Your task to perform on an android device: change notifications settings Image 0: 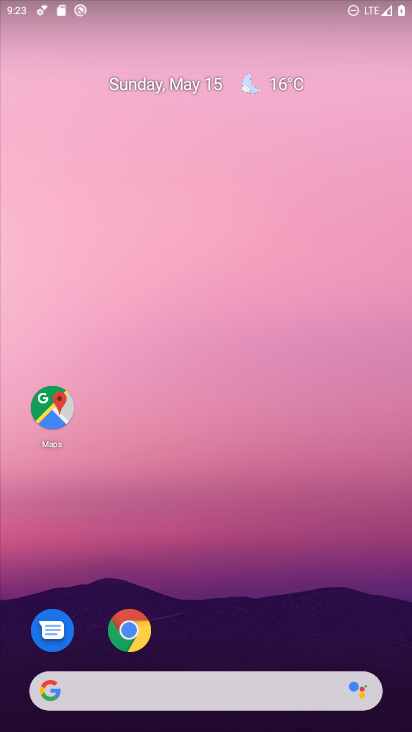
Step 0: drag from (180, 574) to (238, 133)
Your task to perform on an android device: change notifications settings Image 1: 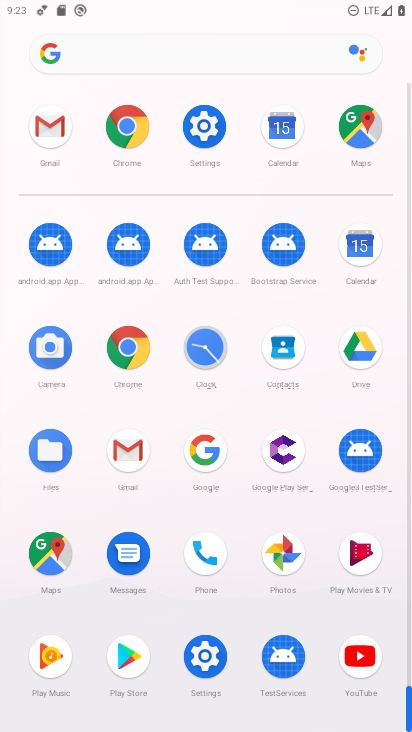
Step 1: click (194, 132)
Your task to perform on an android device: change notifications settings Image 2: 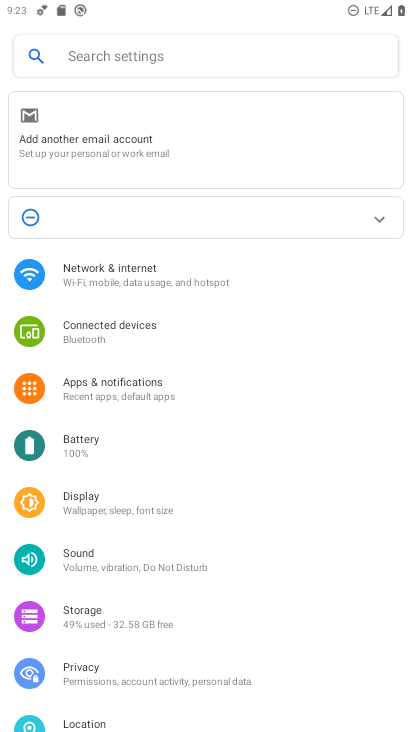
Step 2: click (144, 395)
Your task to perform on an android device: change notifications settings Image 3: 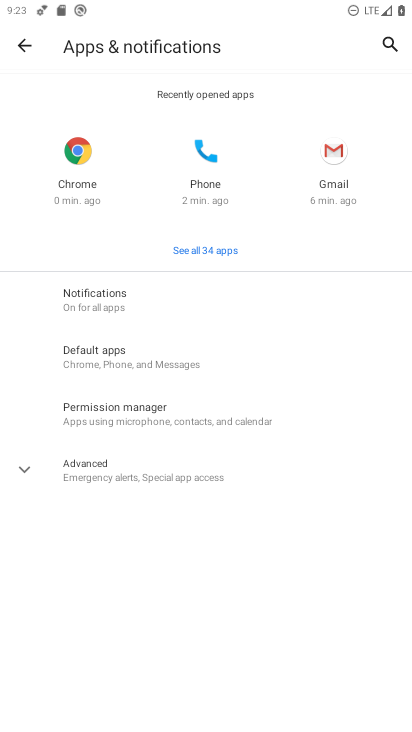
Step 3: drag from (172, 587) to (194, 297)
Your task to perform on an android device: change notifications settings Image 4: 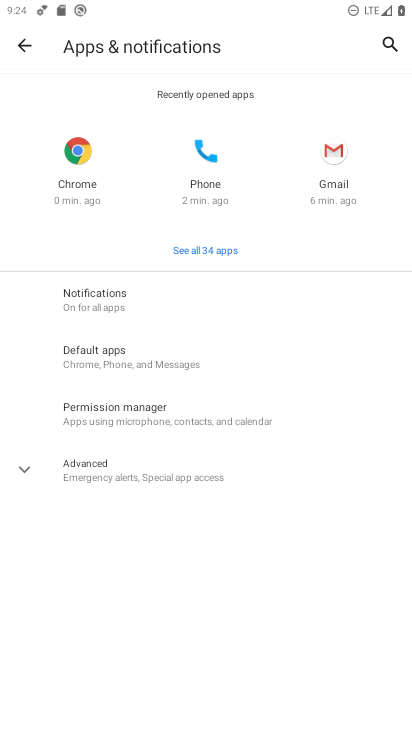
Step 4: click (22, 46)
Your task to perform on an android device: change notifications settings Image 5: 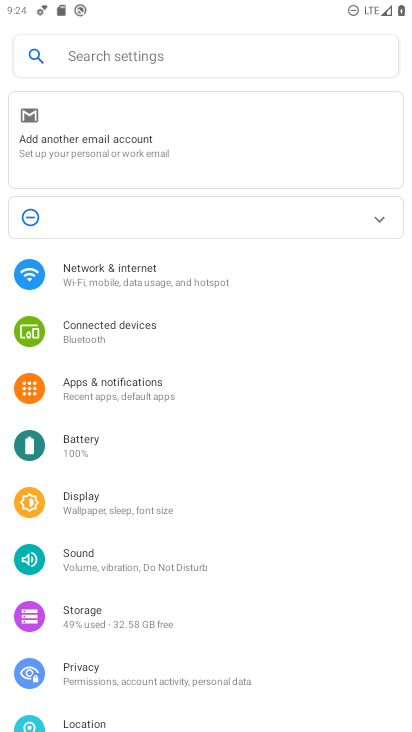
Step 5: click (108, 393)
Your task to perform on an android device: change notifications settings Image 6: 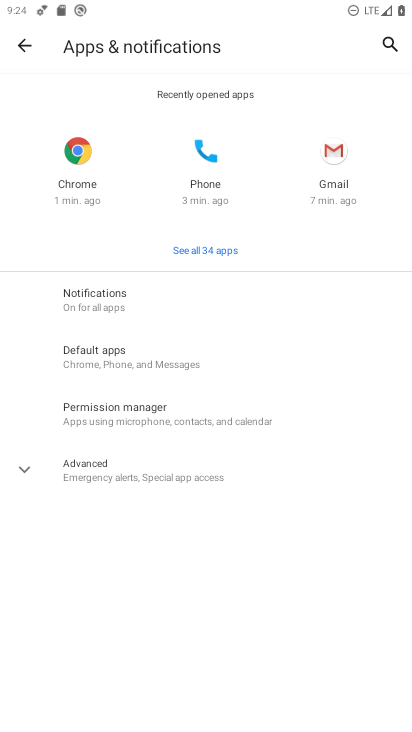
Step 6: click (144, 287)
Your task to perform on an android device: change notifications settings Image 7: 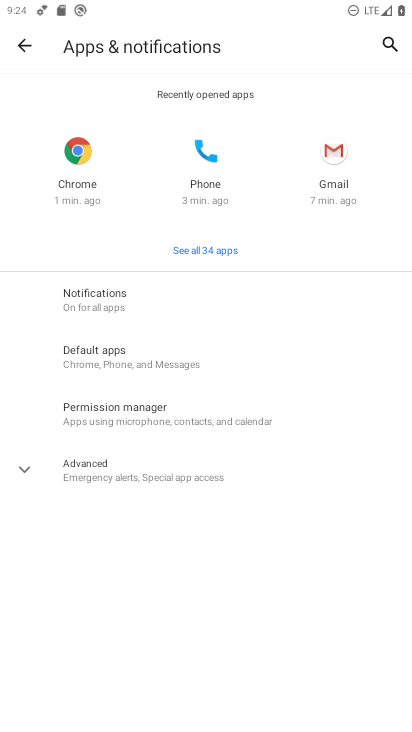
Step 7: click (144, 287)
Your task to perform on an android device: change notifications settings Image 8: 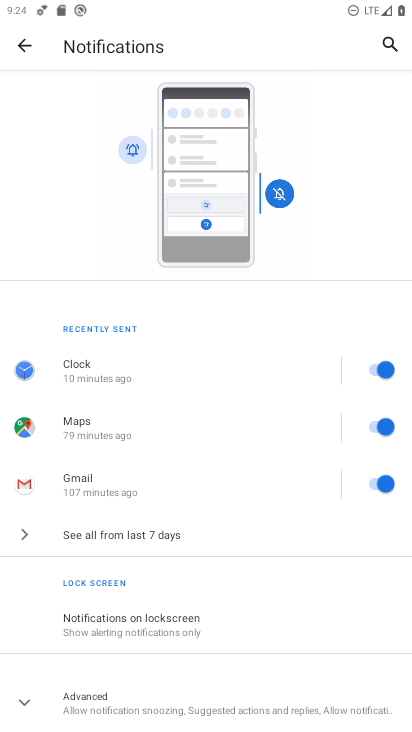
Step 8: click (382, 419)
Your task to perform on an android device: change notifications settings Image 9: 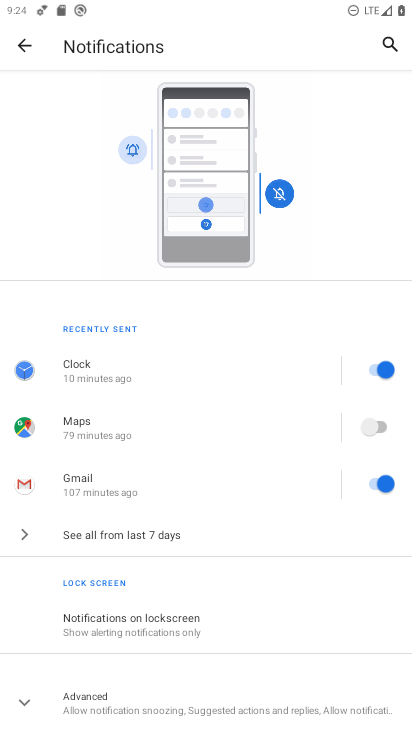
Step 9: task complete